Your task to perform on an android device: Do I have any events this weekend? Image 0: 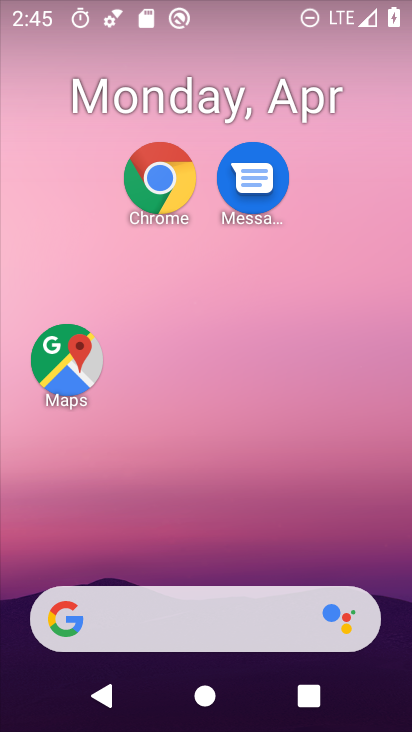
Step 0: drag from (251, 576) to (365, 7)
Your task to perform on an android device: Do I have any events this weekend? Image 1: 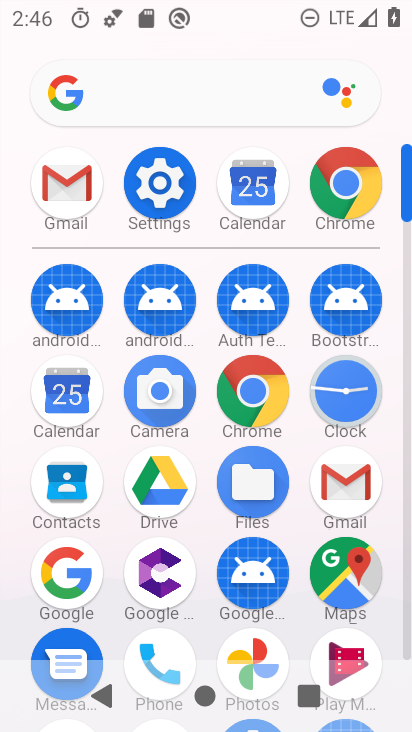
Step 1: click (82, 411)
Your task to perform on an android device: Do I have any events this weekend? Image 2: 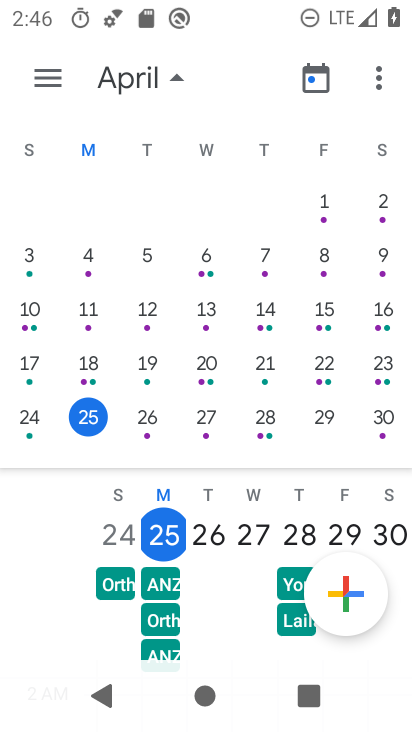
Step 2: click (371, 417)
Your task to perform on an android device: Do I have any events this weekend? Image 3: 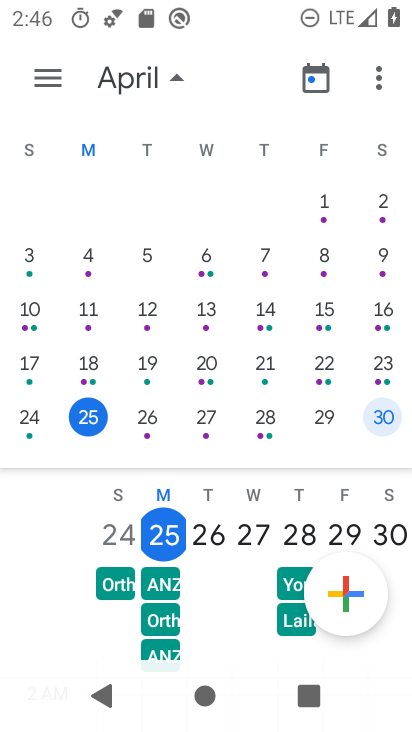
Step 3: click (373, 416)
Your task to perform on an android device: Do I have any events this weekend? Image 4: 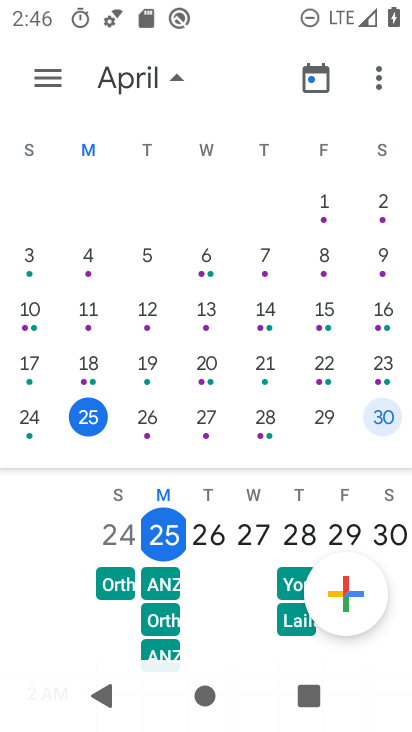
Step 4: click (373, 416)
Your task to perform on an android device: Do I have any events this weekend? Image 5: 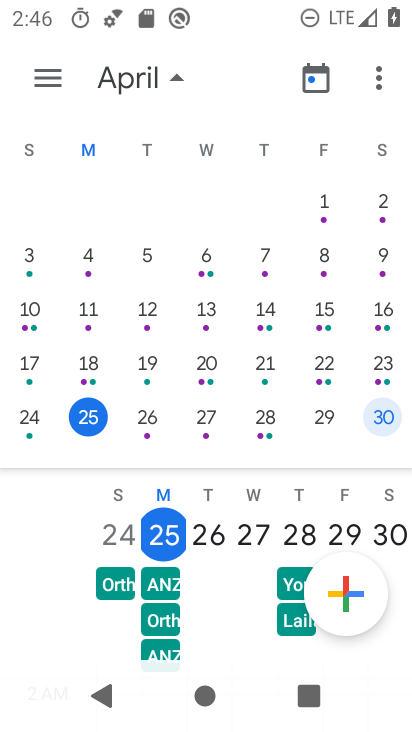
Step 5: click (387, 414)
Your task to perform on an android device: Do I have any events this weekend? Image 6: 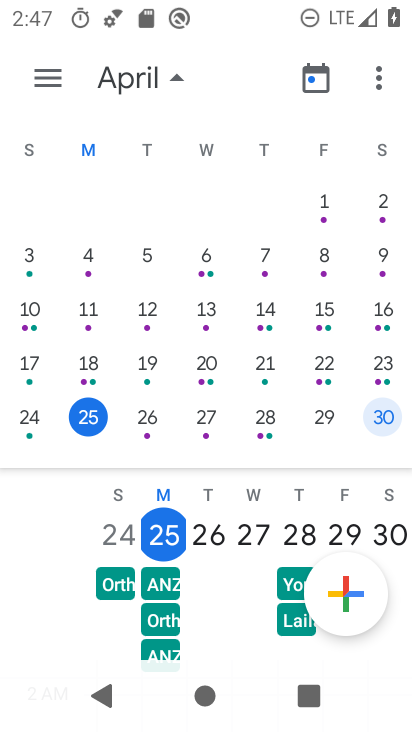
Step 6: click (380, 418)
Your task to perform on an android device: Do I have any events this weekend? Image 7: 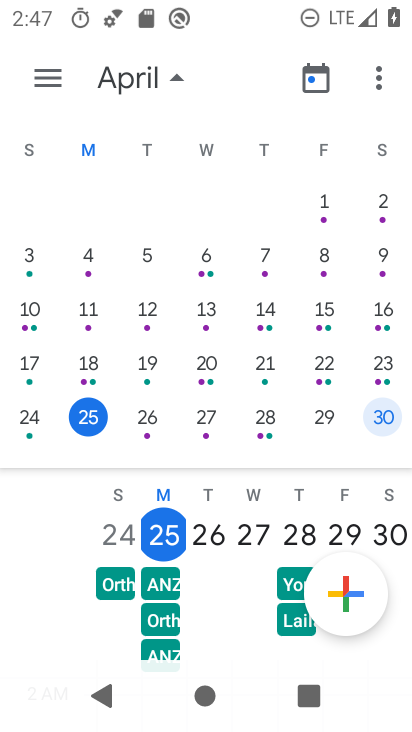
Step 7: click (387, 415)
Your task to perform on an android device: Do I have any events this weekend? Image 8: 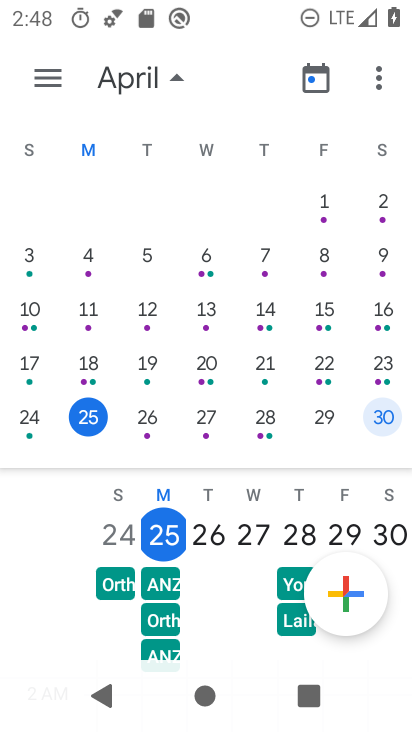
Step 8: task complete